Your task to perform on an android device: open app "LinkedIn" (install if not already installed) Image 0: 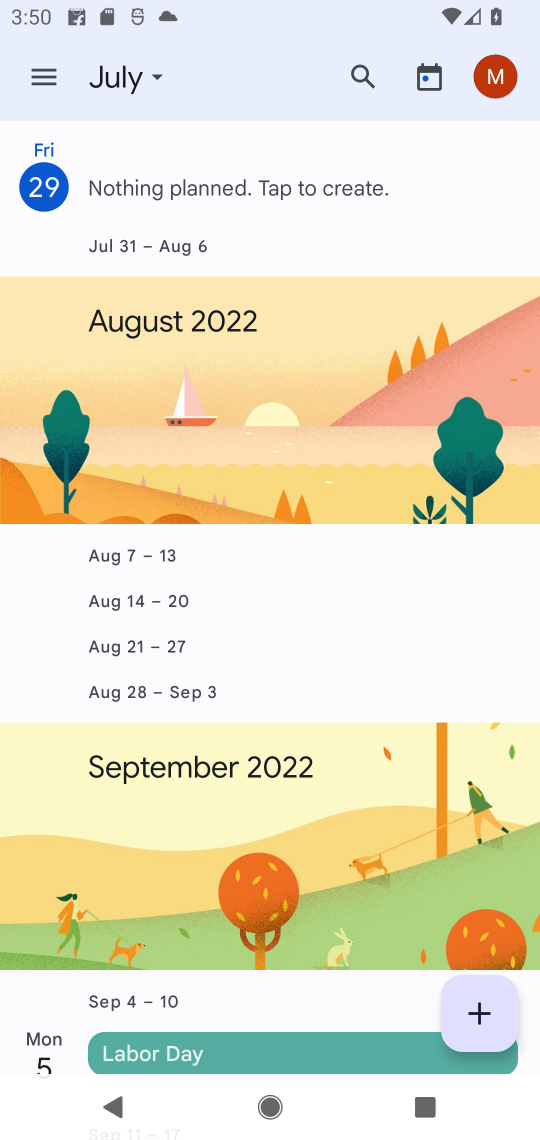
Step 0: press home button
Your task to perform on an android device: open app "LinkedIn" (install if not already installed) Image 1: 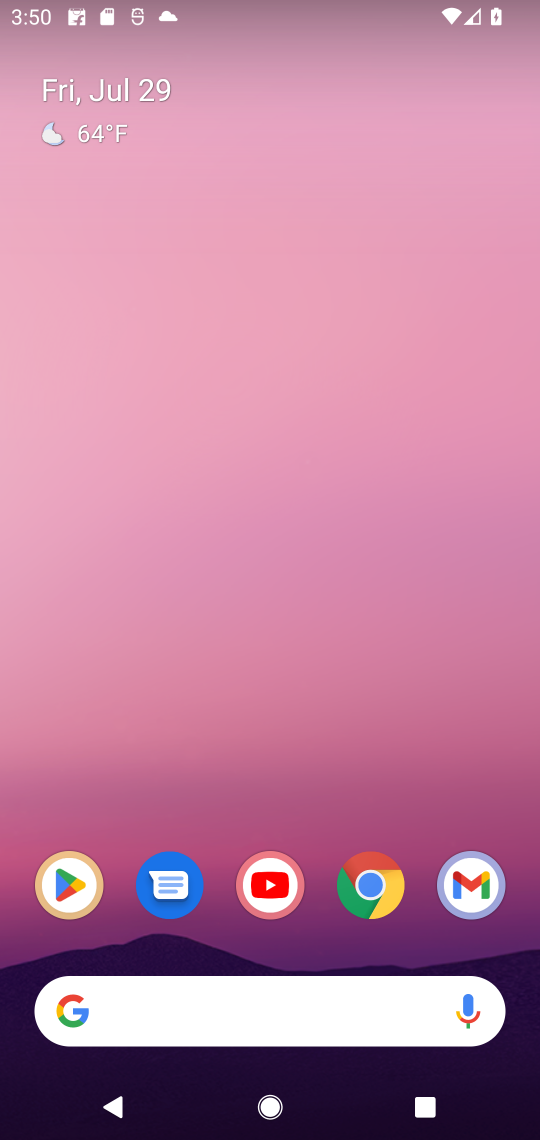
Step 1: click (67, 891)
Your task to perform on an android device: open app "LinkedIn" (install if not already installed) Image 2: 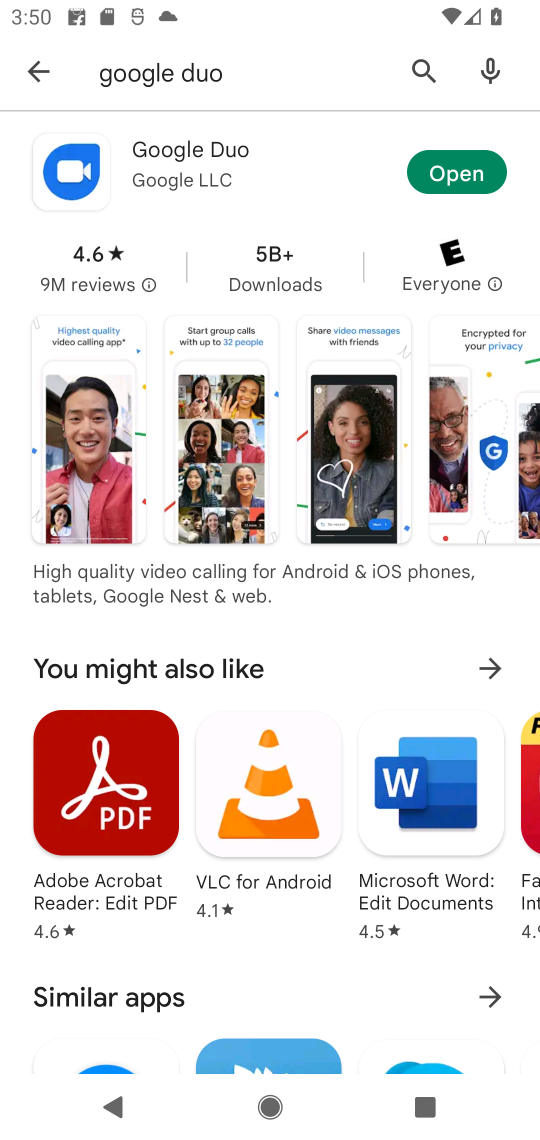
Step 2: click (428, 63)
Your task to perform on an android device: open app "LinkedIn" (install if not already installed) Image 3: 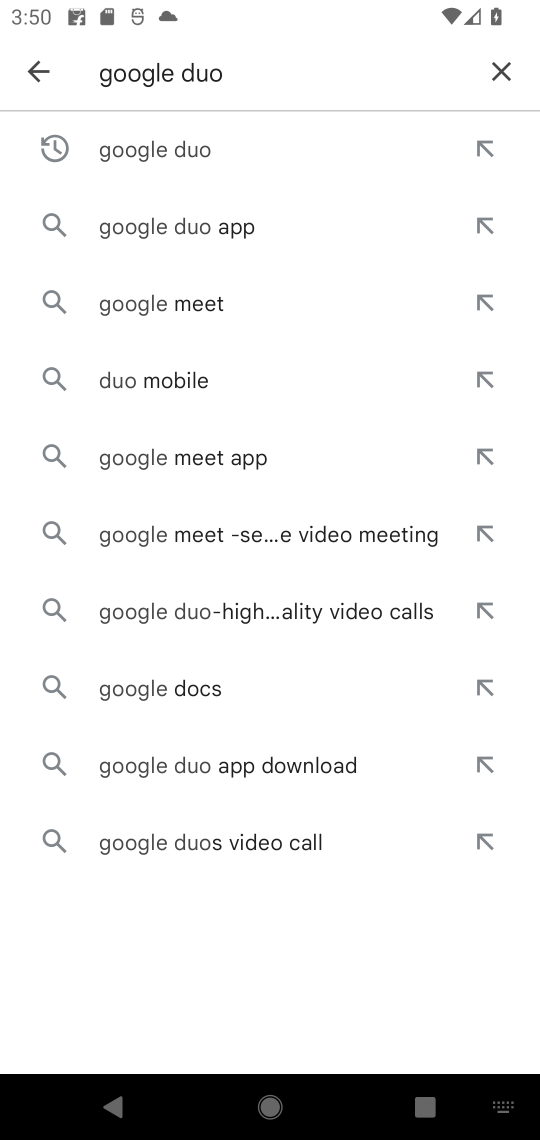
Step 3: click (510, 66)
Your task to perform on an android device: open app "LinkedIn" (install if not already installed) Image 4: 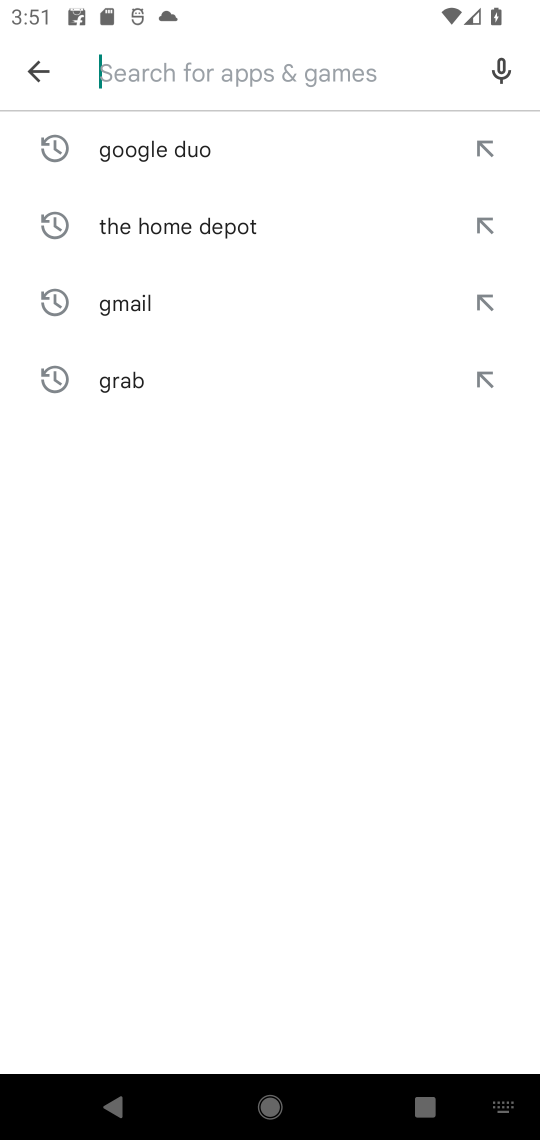
Step 4: type "LinkedIn"
Your task to perform on an android device: open app "LinkedIn" (install if not already installed) Image 5: 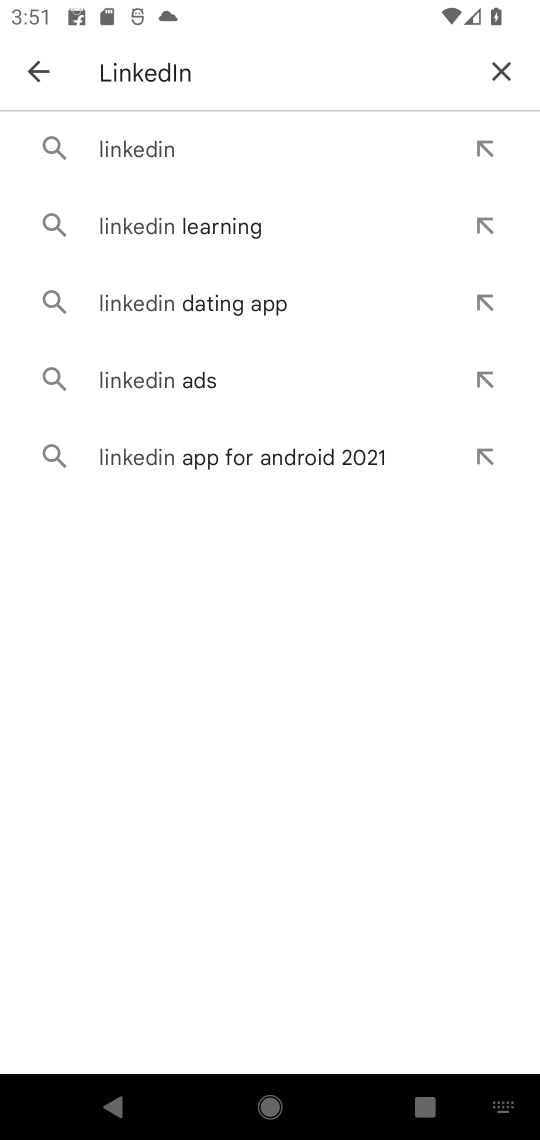
Step 5: click (114, 134)
Your task to perform on an android device: open app "LinkedIn" (install if not already installed) Image 6: 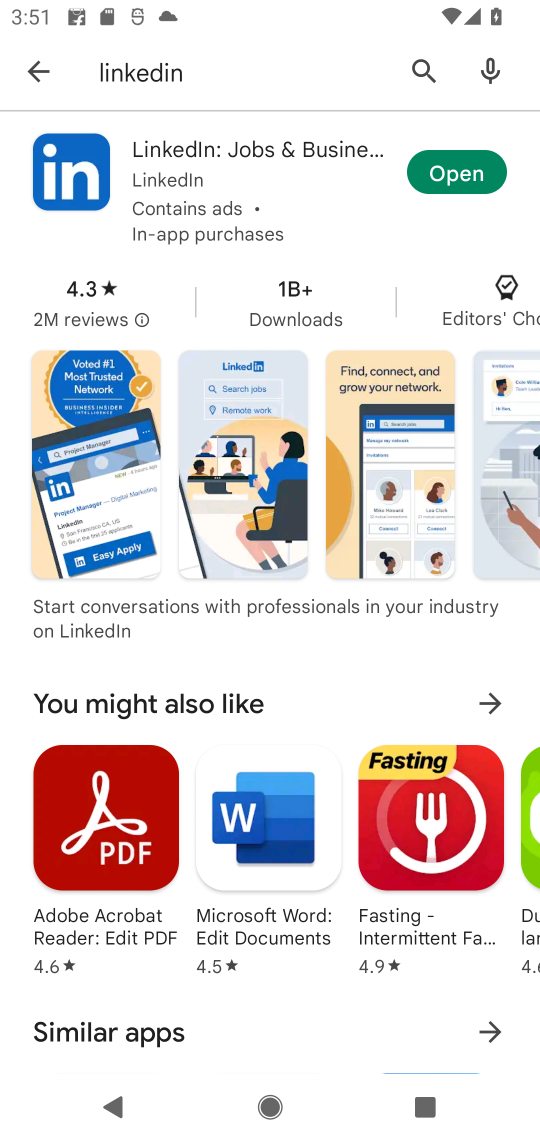
Step 6: click (456, 173)
Your task to perform on an android device: open app "LinkedIn" (install if not already installed) Image 7: 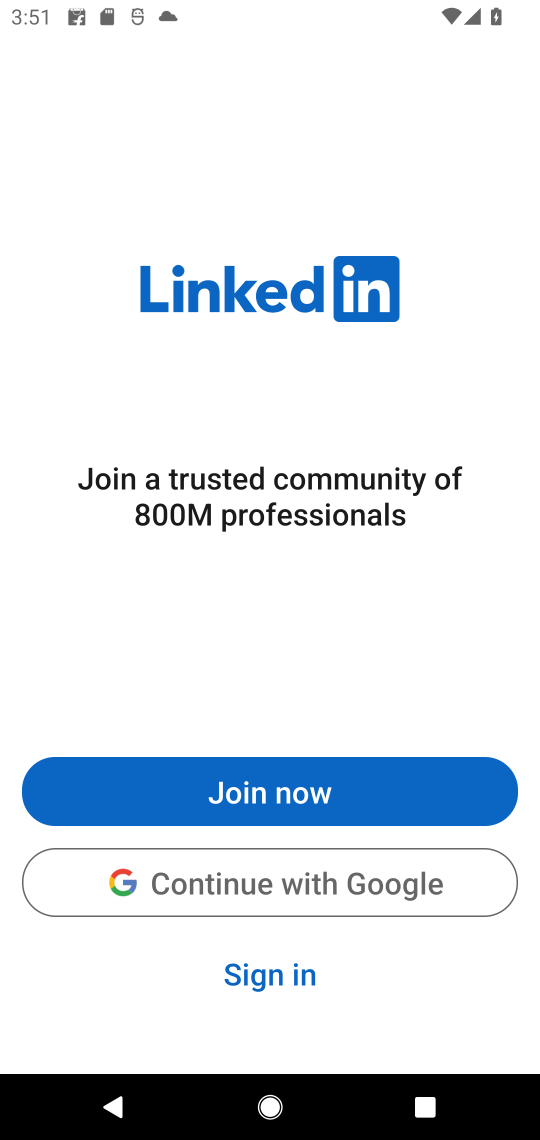
Step 7: task complete